Your task to perform on an android device: change text size in settings app Image 0: 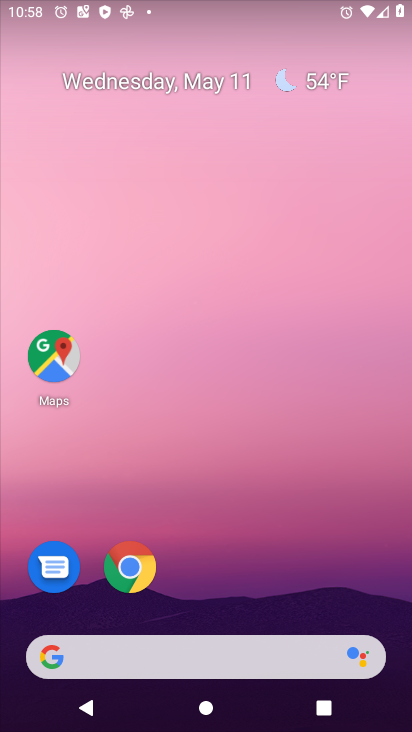
Step 0: drag from (226, 611) to (218, 5)
Your task to perform on an android device: change text size in settings app Image 1: 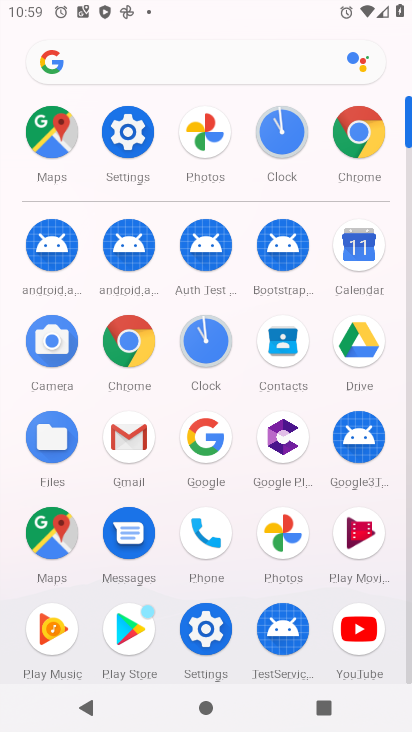
Step 1: click (202, 631)
Your task to perform on an android device: change text size in settings app Image 2: 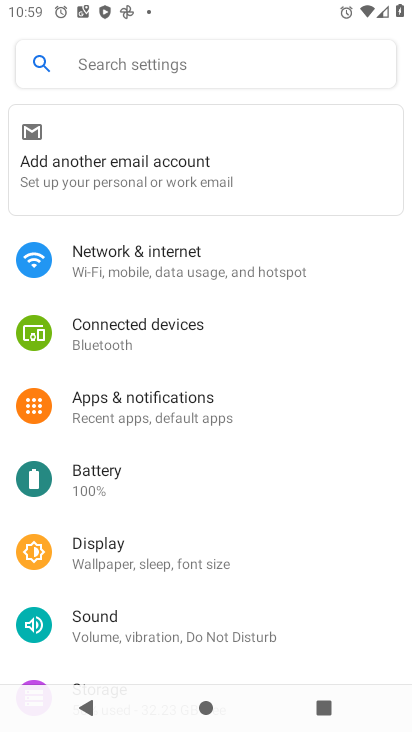
Step 2: click (154, 575)
Your task to perform on an android device: change text size in settings app Image 3: 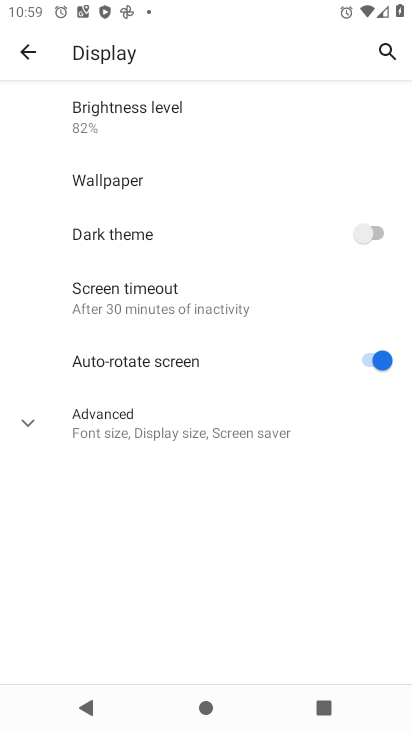
Step 3: click (158, 438)
Your task to perform on an android device: change text size in settings app Image 4: 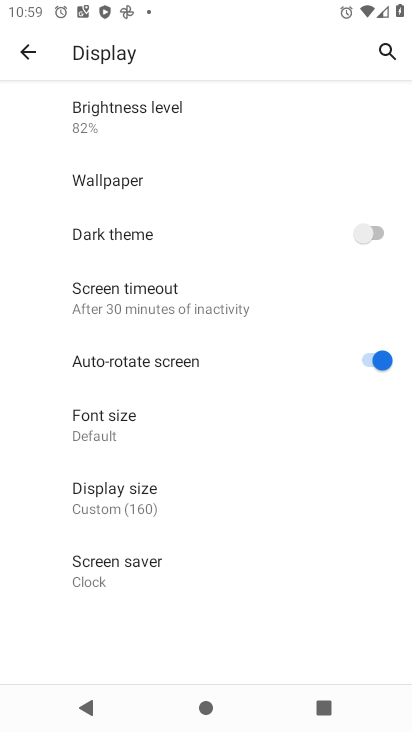
Step 4: click (99, 436)
Your task to perform on an android device: change text size in settings app Image 5: 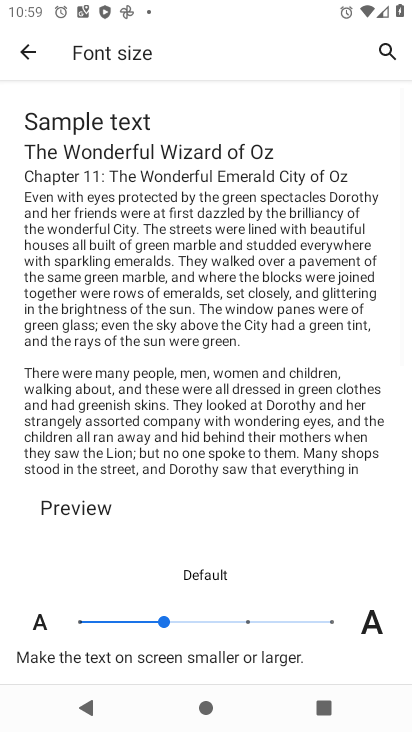
Step 5: click (82, 630)
Your task to perform on an android device: change text size in settings app Image 6: 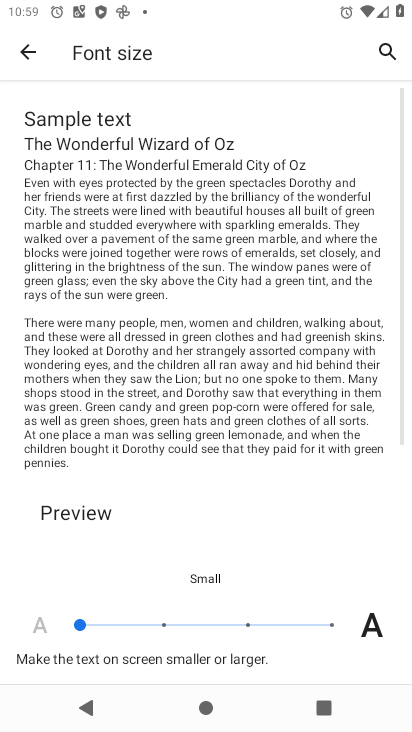
Step 6: task complete